Your task to perform on an android device: set the timer Image 0: 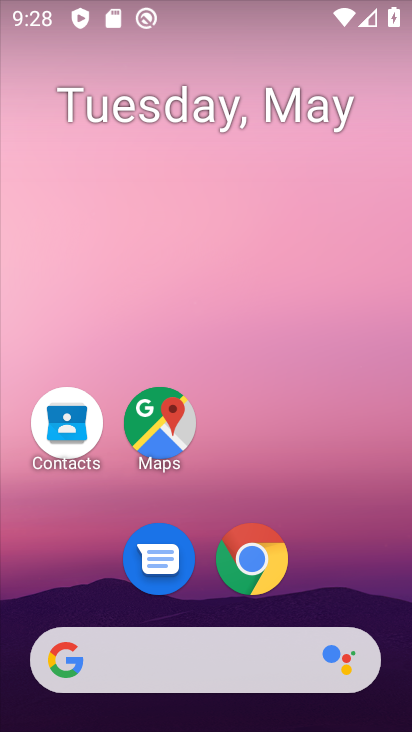
Step 0: drag from (380, 582) to (339, 138)
Your task to perform on an android device: set the timer Image 1: 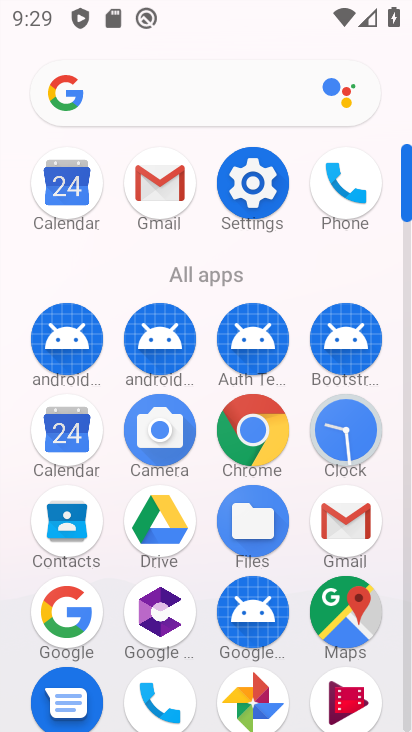
Step 1: click (334, 437)
Your task to perform on an android device: set the timer Image 2: 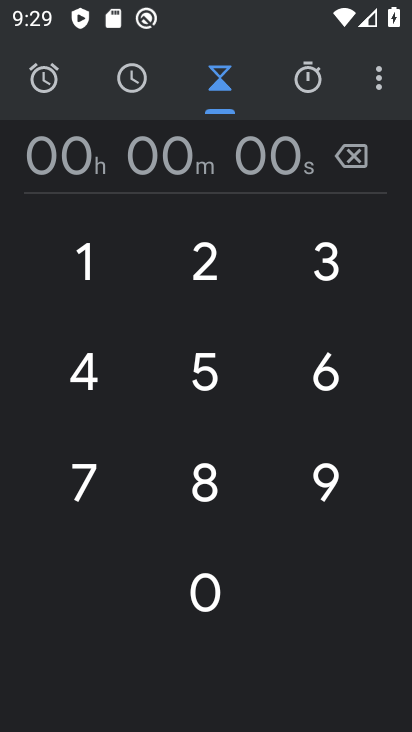
Step 2: task complete